Your task to perform on an android device: Open calendar and show me the second week of next month Image 0: 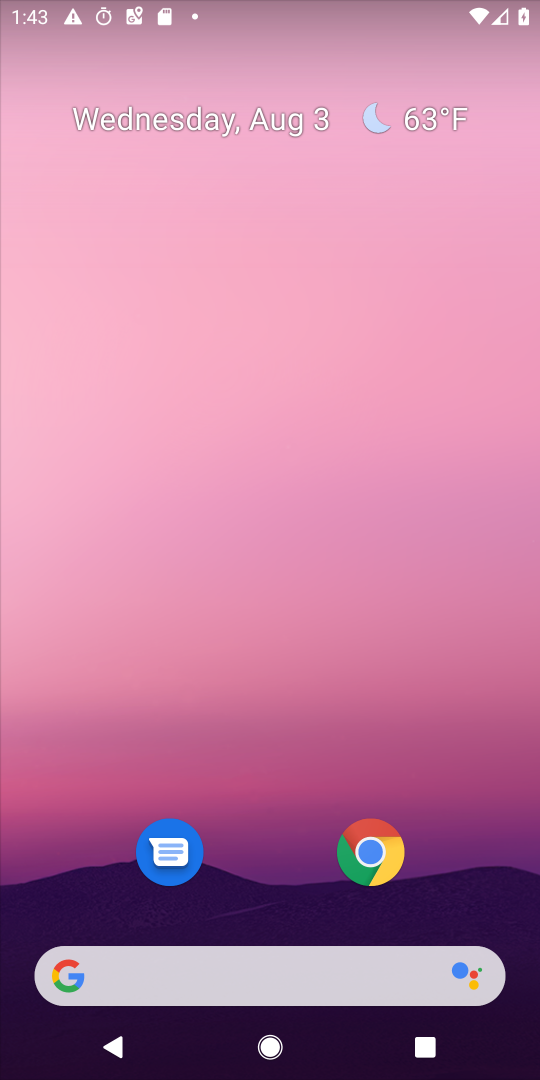
Step 0: drag from (477, 856) to (199, 23)
Your task to perform on an android device: Open calendar and show me the second week of next month Image 1: 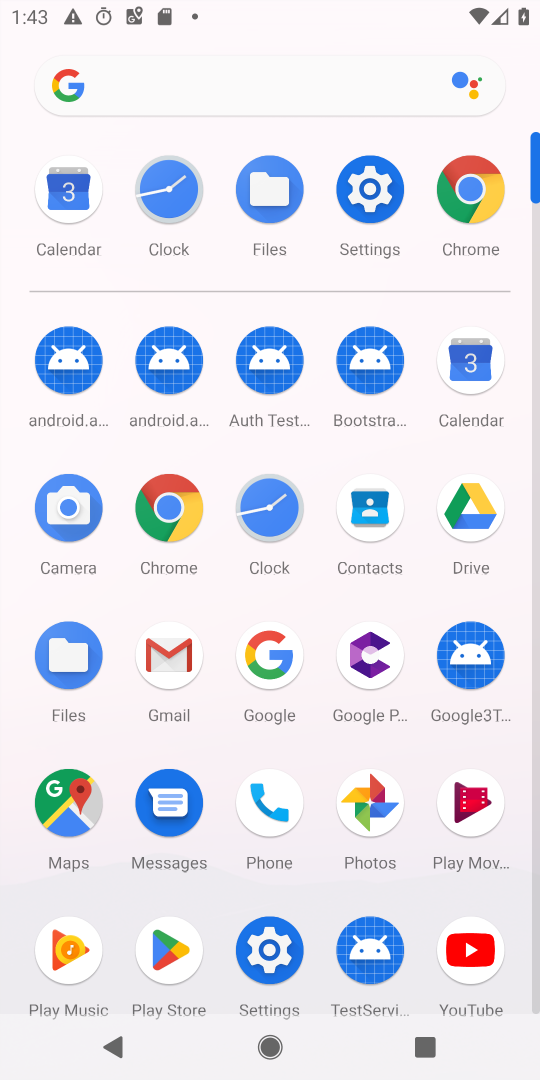
Step 1: click (476, 371)
Your task to perform on an android device: Open calendar and show me the second week of next month Image 2: 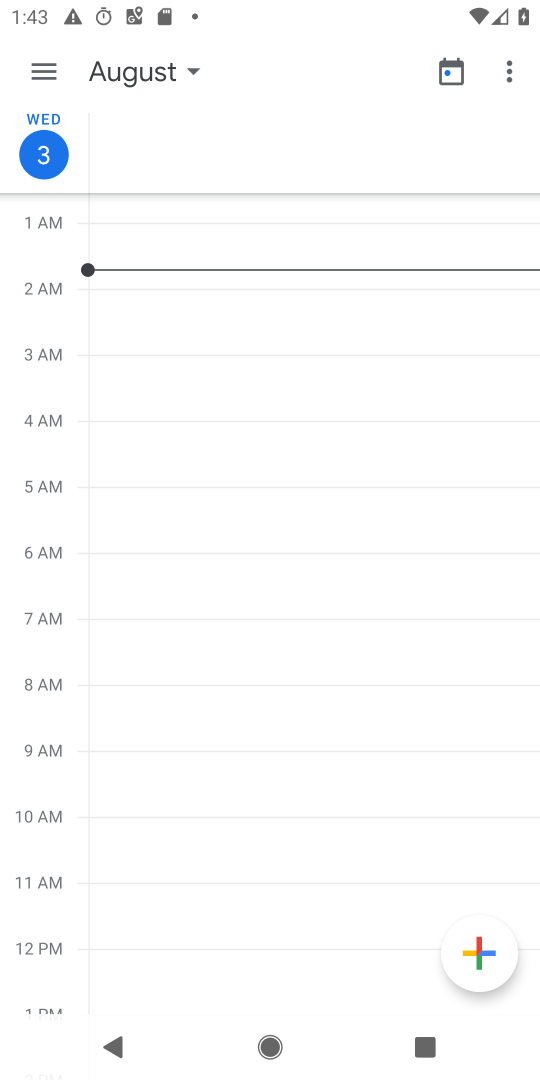
Step 2: click (153, 74)
Your task to perform on an android device: Open calendar and show me the second week of next month Image 3: 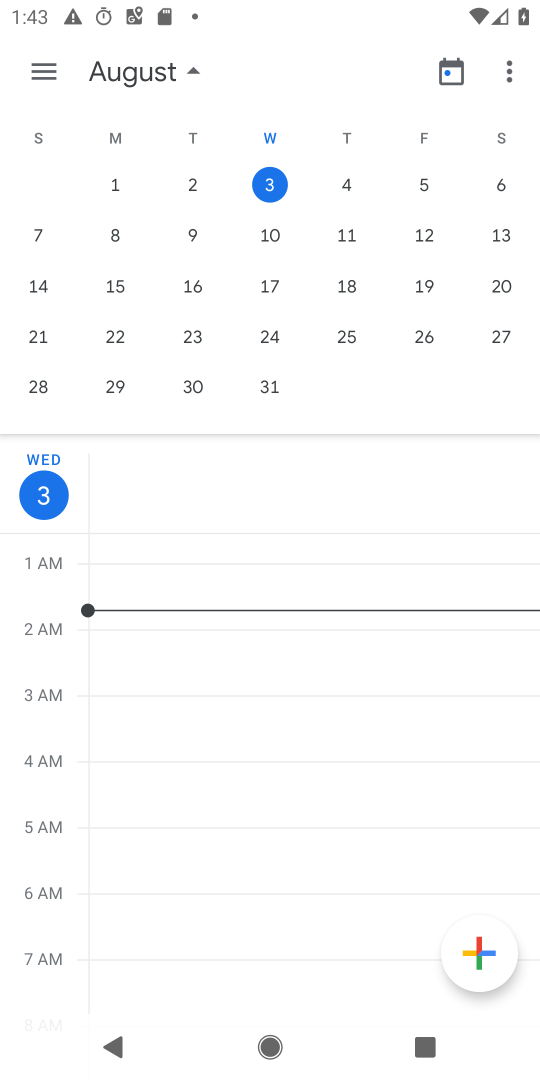
Step 3: drag from (484, 291) to (29, 344)
Your task to perform on an android device: Open calendar and show me the second week of next month Image 4: 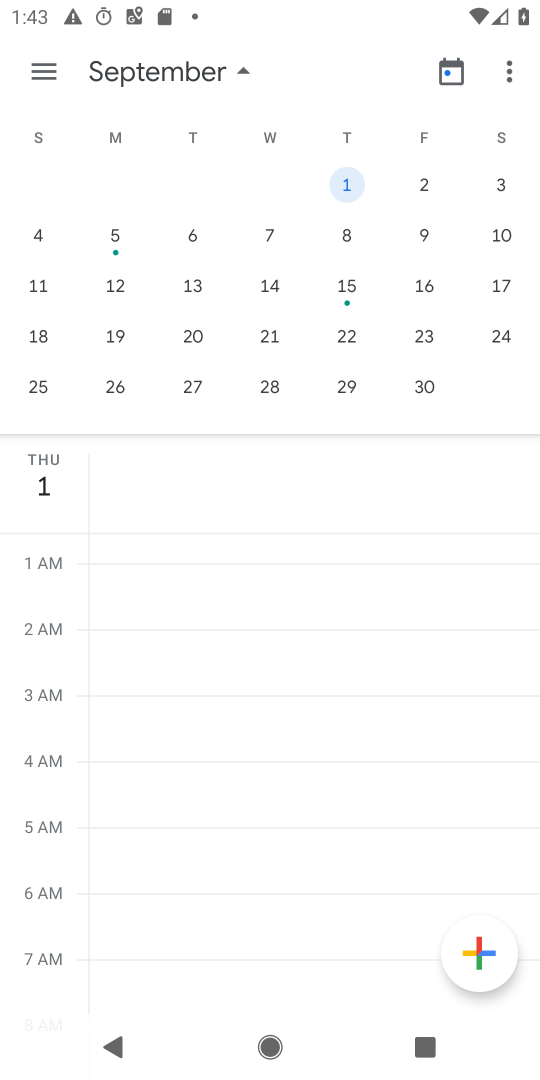
Step 4: click (43, 283)
Your task to perform on an android device: Open calendar and show me the second week of next month Image 5: 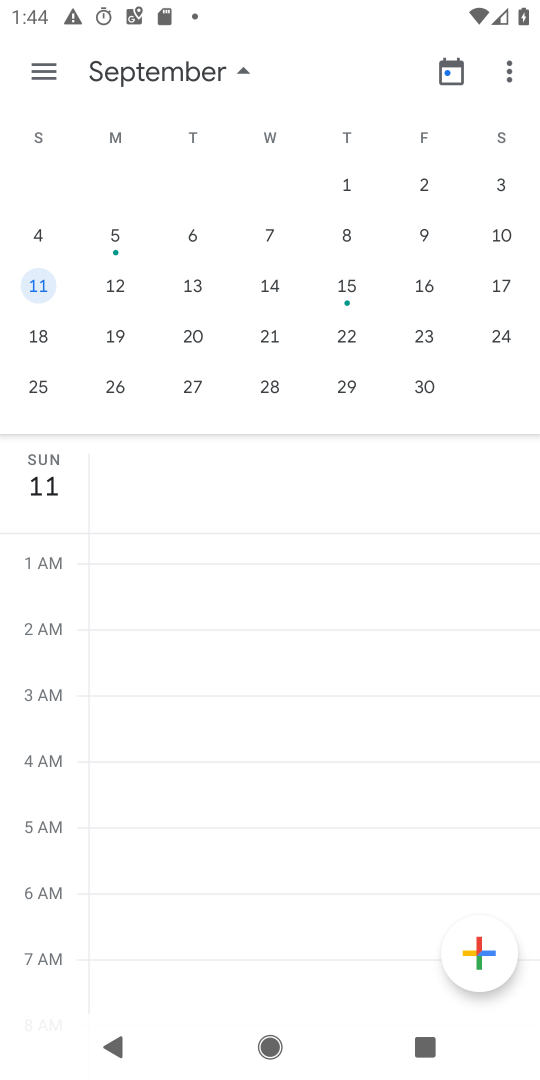
Step 5: task complete